Your task to perform on an android device: open app "Facebook Messenger" (install if not already installed) and enter user name: "divorce@inbox.com" and password: "caviar" Image 0: 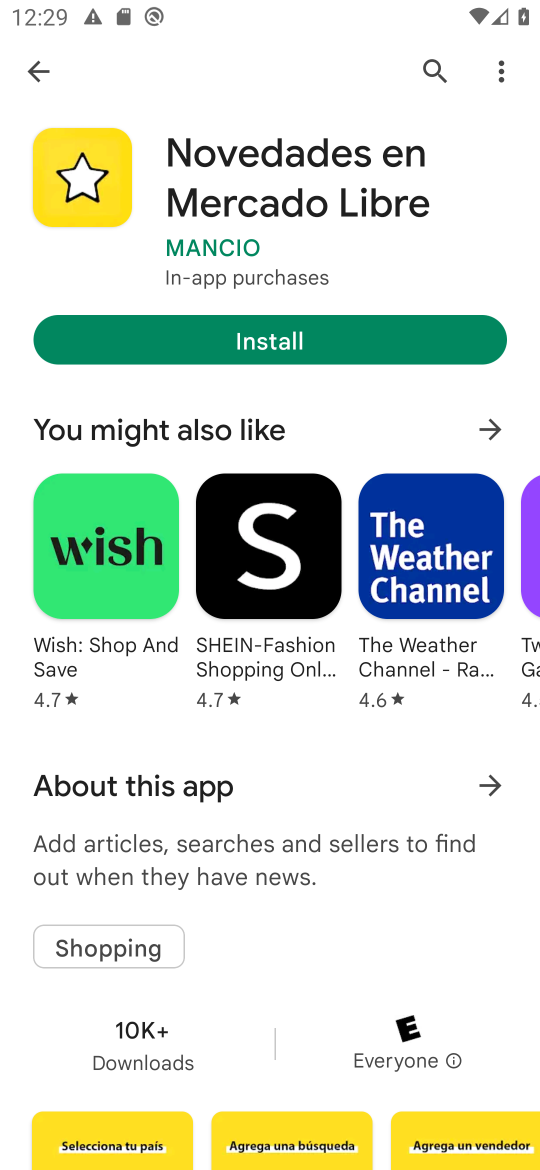
Step 0: click (19, 48)
Your task to perform on an android device: open app "Facebook Messenger" (install if not already installed) and enter user name: "divorce@inbox.com" and password: "caviar" Image 1: 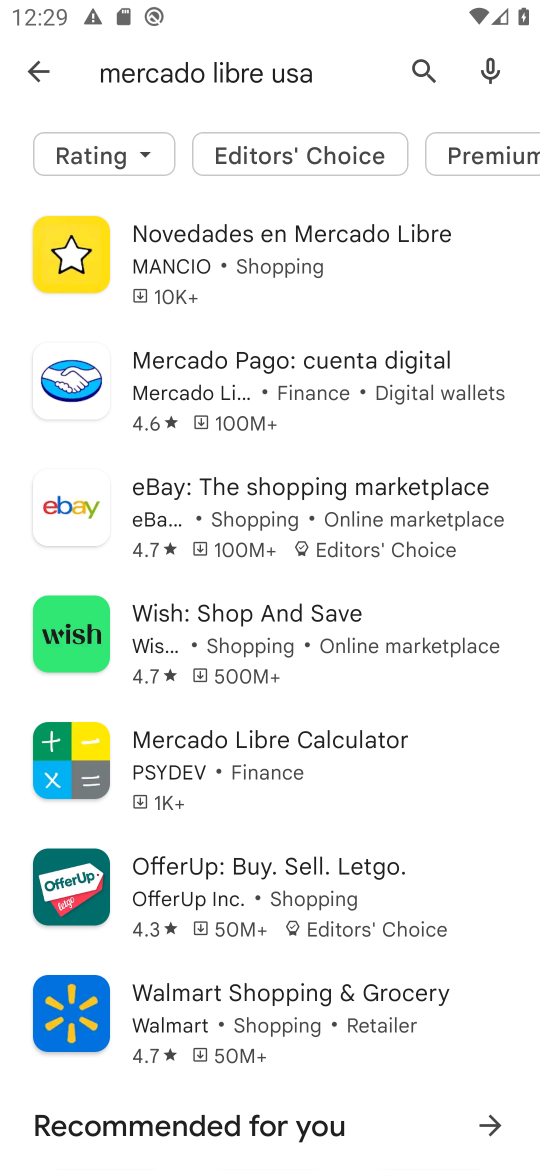
Step 1: click (23, 66)
Your task to perform on an android device: open app "Facebook Messenger" (install if not already installed) and enter user name: "divorce@inbox.com" and password: "caviar" Image 2: 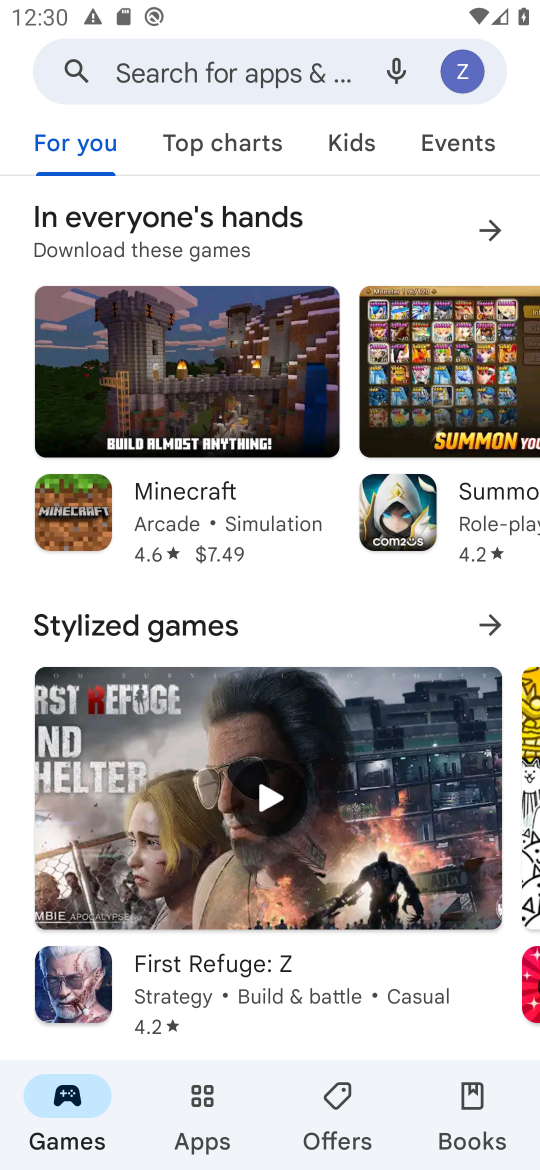
Step 2: click (141, 65)
Your task to perform on an android device: open app "Facebook Messenger" (install if not already installed) and enter user name: "divorce@inbox.com" and password: "caviar" Image 3: 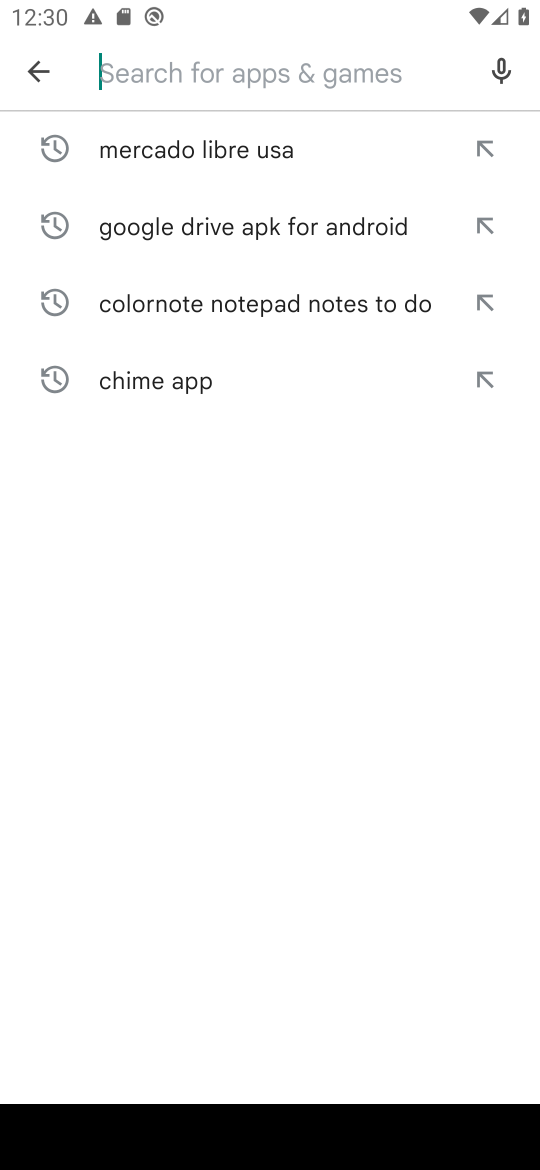
Step 3: type "Facebook Messenger "
Your task to perform on an android device: open app "Facebook Messenger" (install if not already installed) and enter user name: "divorce@inbox.com" and password: "caviar" Image 4: 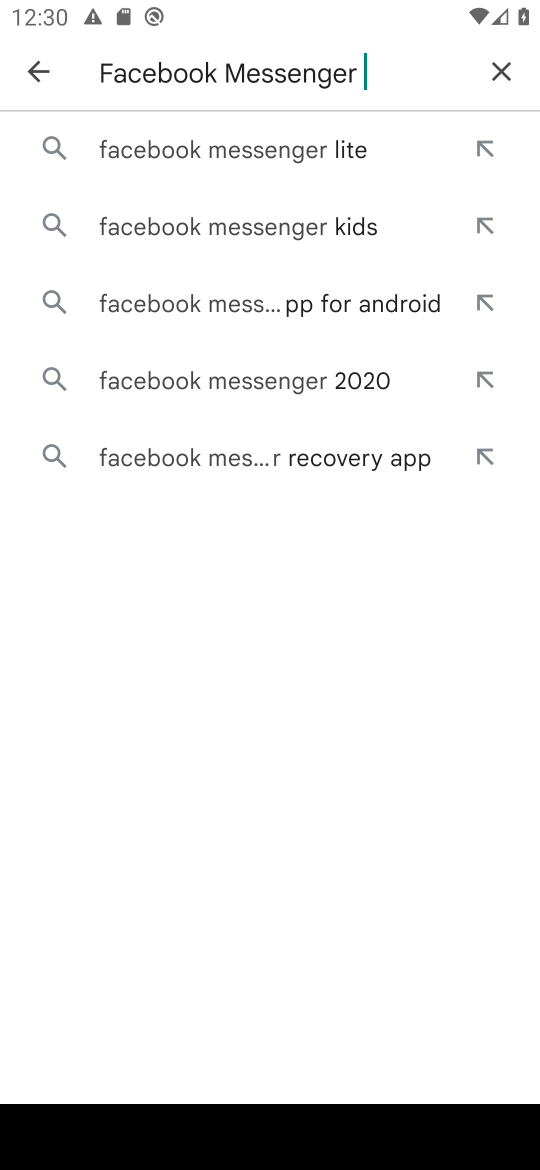
Step 4: click (283, 167)
Your task to perform on an android device: open app "Facebook Messenger" (install if not already installed) and enter user name: "divorce@inbox.com" and password: "caviar" Image 5: 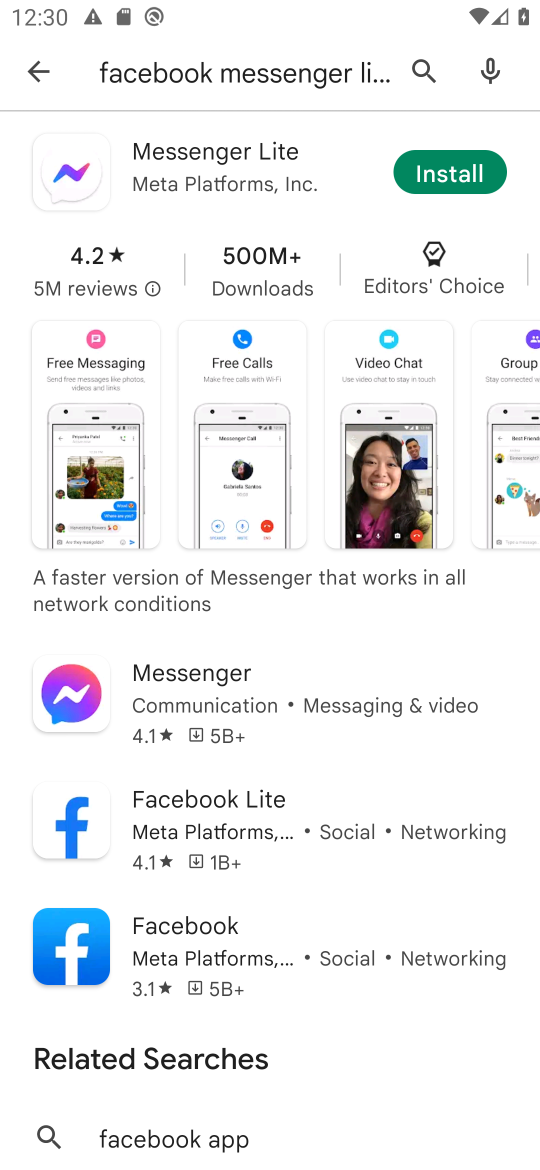
Step 5: click (463, 171)
Your task to perform on an android device: open app "Facebook Messenger" (install if not already installed) and enter user name: "divorce@inbox.com" and password: "caviar" Image 6: 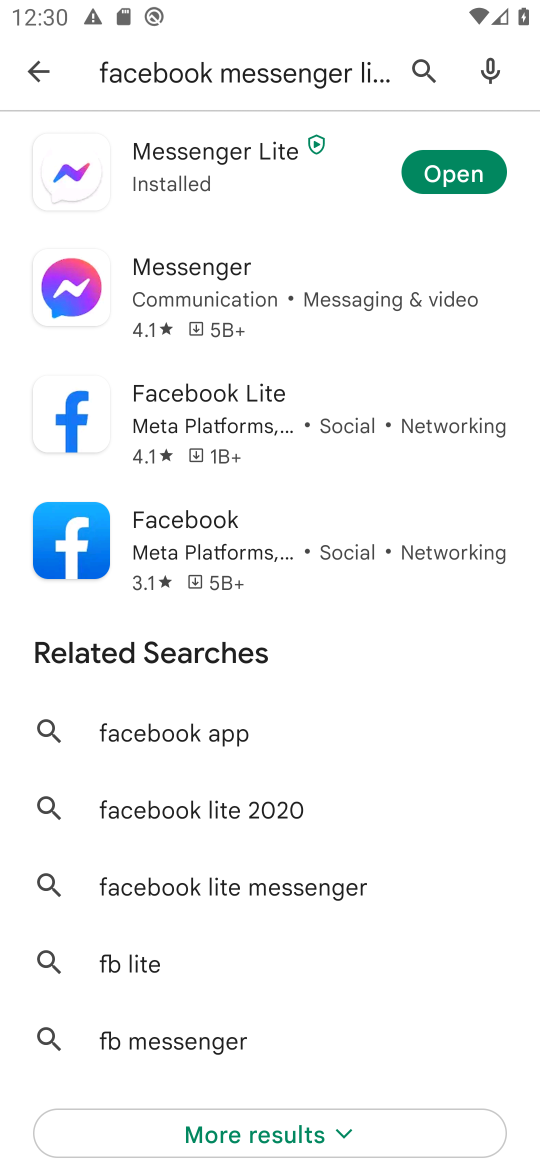
Step 6: click (413, 170)
Your task to perform on an android device: open app "Facebook Messenger" (install if not already installed) and enter user name: "divorce@inbox.com" and password: "caviar" Image 7: 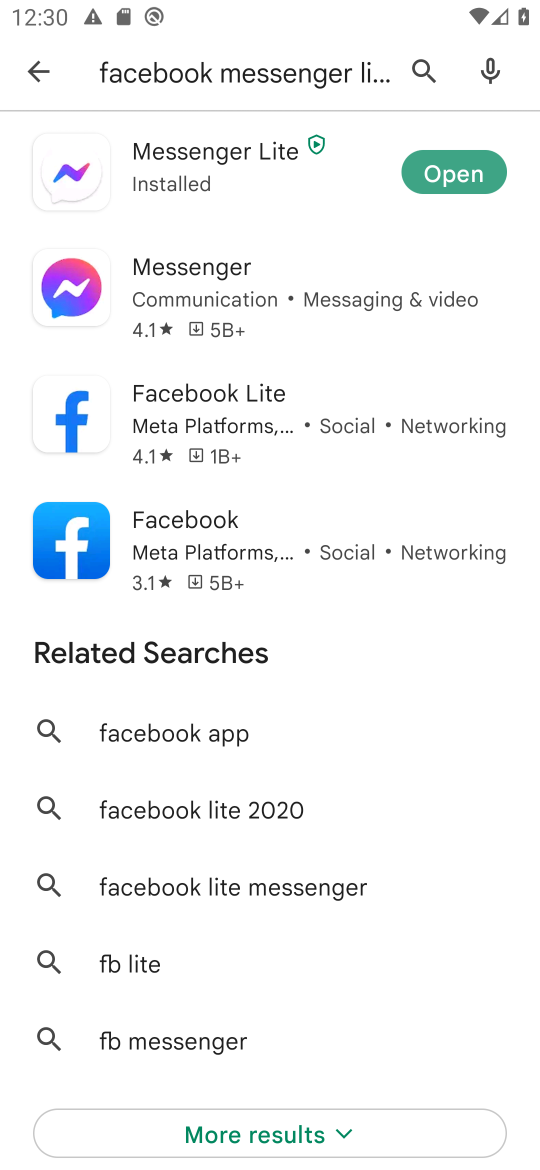
Step 7: task complete